Your task to perform on an android device: remove spam from my inbox in the gmail app Image 0: 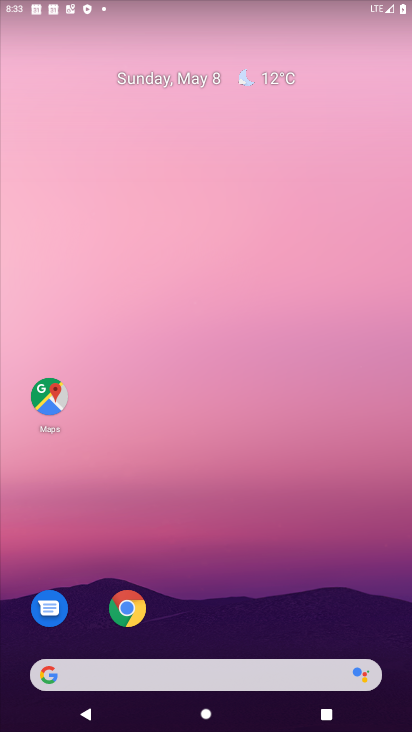
Step 0: drag from (247, 586) to (182, 21)
Your task to perform on an android device: remove spam from my inbox in the gmail app Image 1: 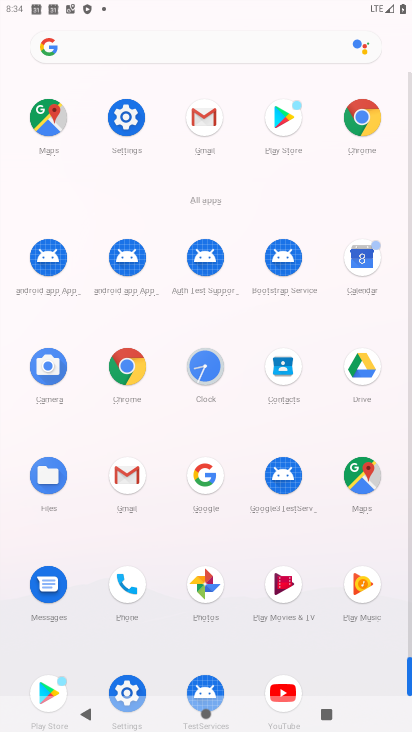
Step 1: click (126, 472)
Your task to perform on an android device: remove spam from my inbox in the gmail app Image 2: 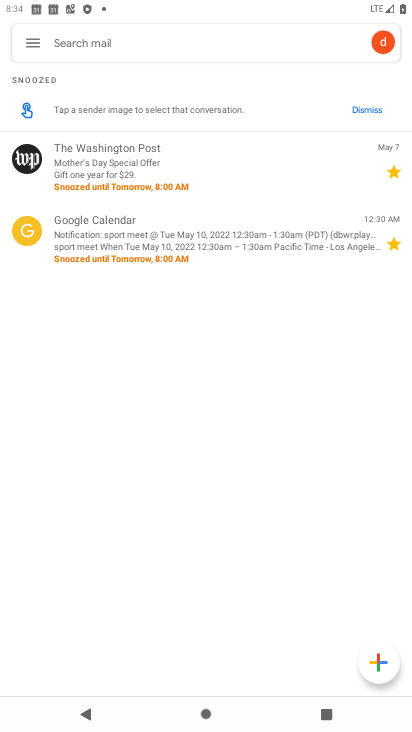
Step 2: click (33, 39)
Your task to perform on an android device: remove spam from my inbox in the gmail app Image 3: 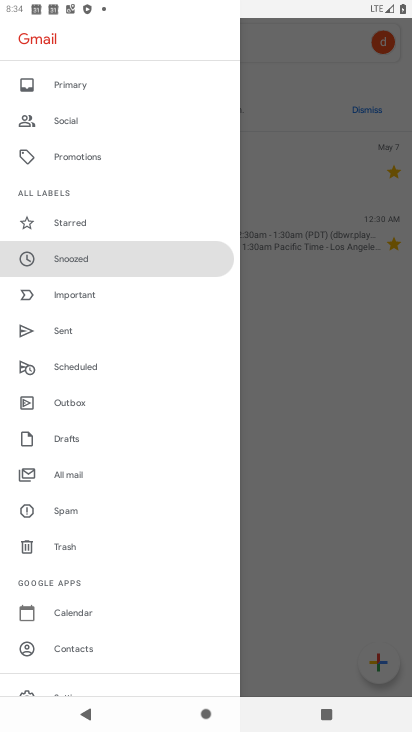
Step 3: click (80, 510)
Your task to perform on an android device: remove spam from my inbox in the gmail app Image 4: 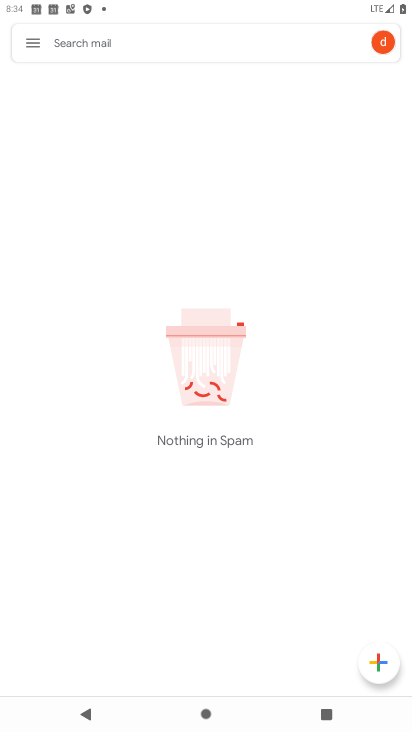
Step 4: task complete